Your task to perform on an android device: Go to CNN.com Image 0: 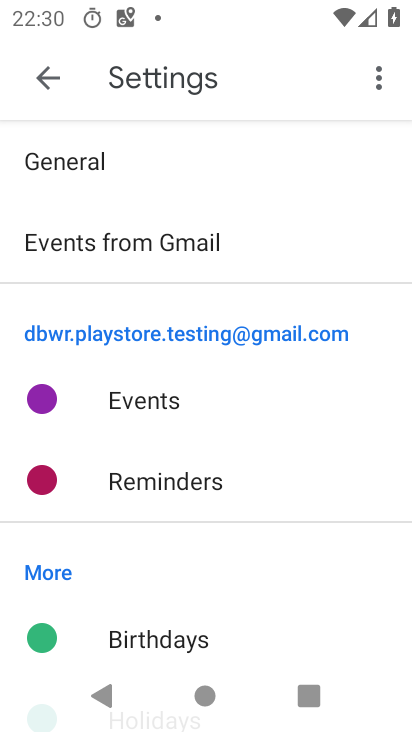
Step 0: press back button
Your task to perform on an android device: Go to CNN.com Image 1: 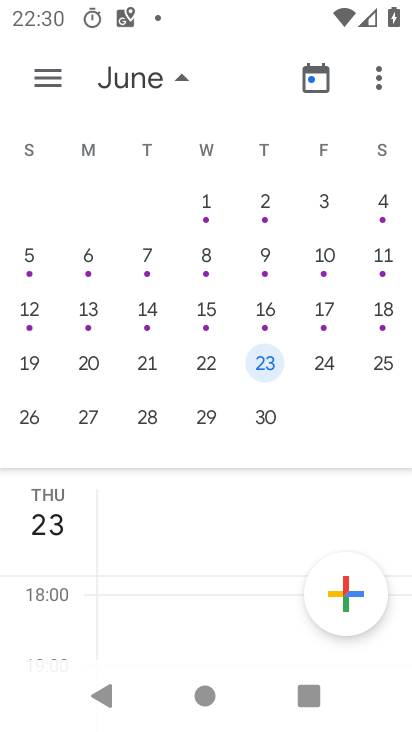
Step 1: press home button
Your task to perform on an android device: Go to CNN.com Image 2: 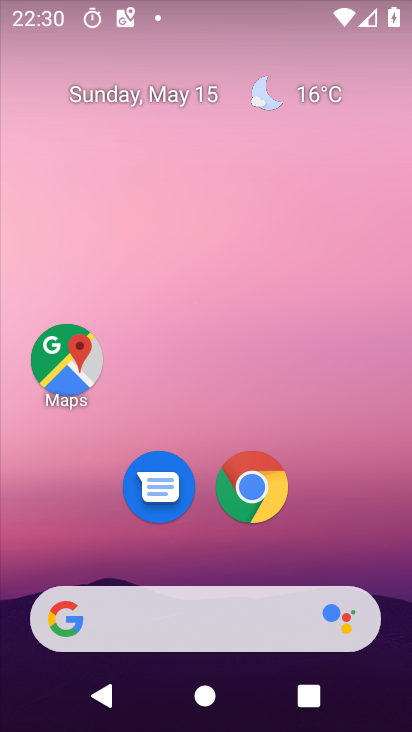
Step 2: click (268, 488)
Your task to perform on an android device: Go to CNN.com Image 3: 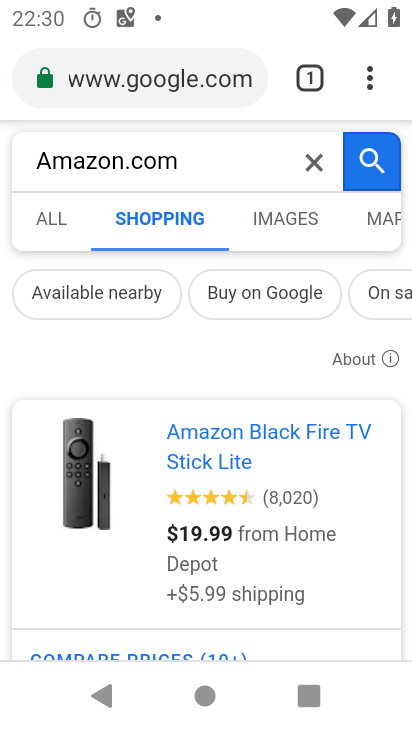
Step 3: click (259, 78)
Your task to perform on an android device: Go to CNN.com Image 4: 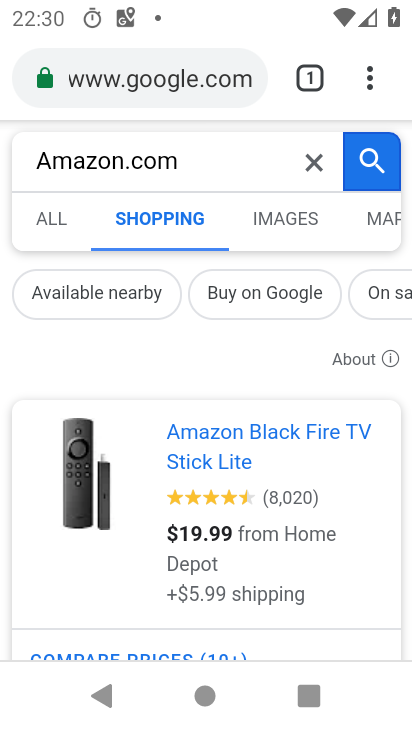
Step 4: click (258, 74)
Your task to perform on an android device: Go to CNN.com Image 5: 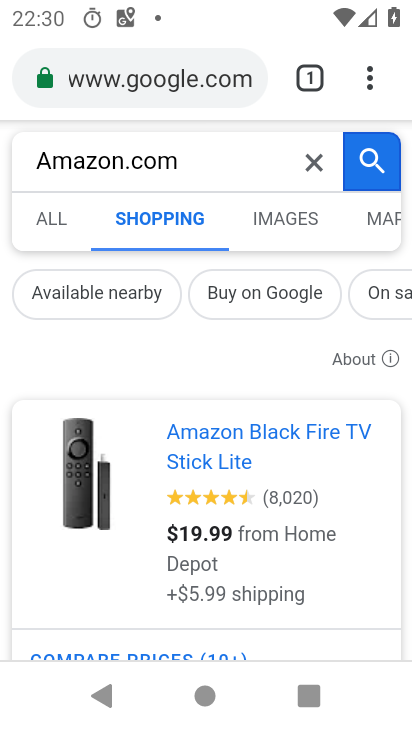
Step 5: click (257, 76)
Your task to perform on an android device: Go to CNN.com Image 6: 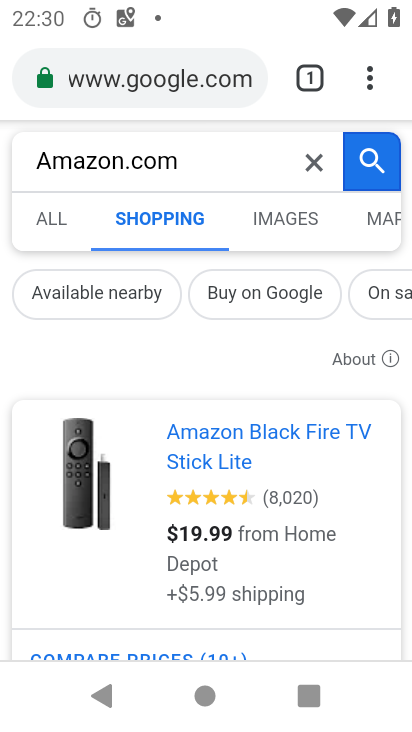
Step 6: click (245, 78)
Your task to perform on an android device: Go to CNN.com Image 7: 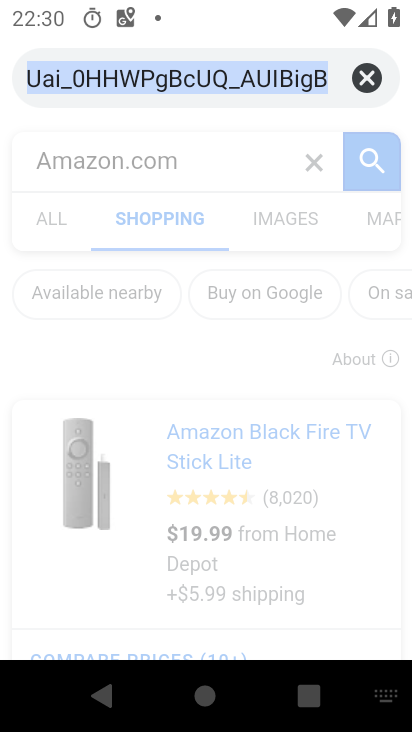
Step 7: click (373, 77)
Your task to perform on an android device: Go to CNN.com Image 8: 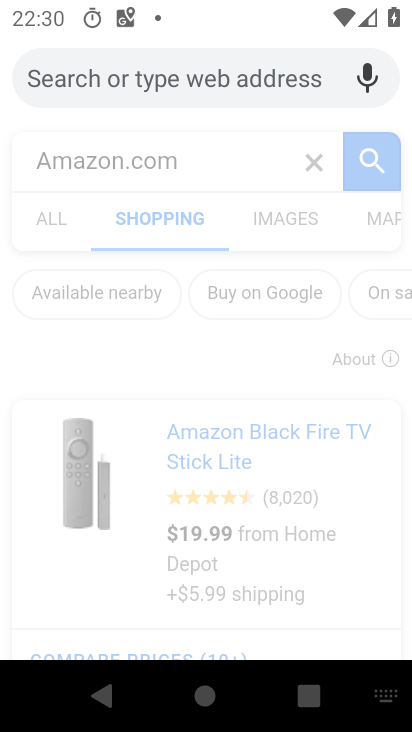
Step 8: type "CNN.com"
Your task to perform on an android device: Go to CNN.com Image 9: 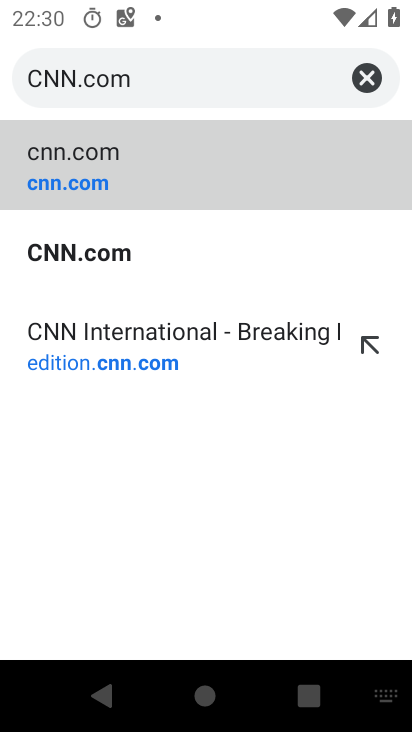
Step 9: click (103, 242)
Your task to perform on an android device: Go to CNN.com Image 10: 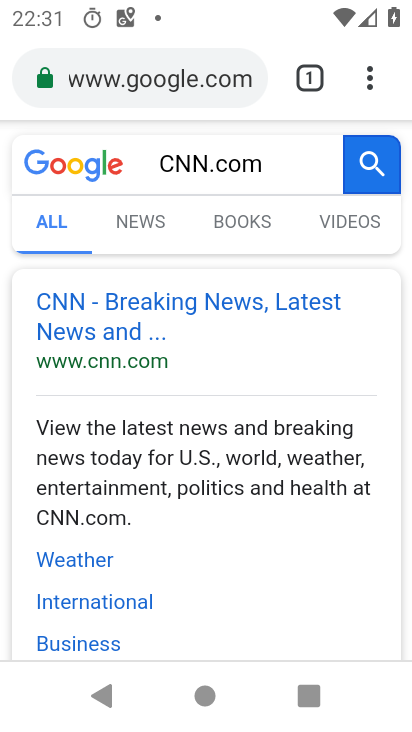
Step 10: task complete